Your task to perform on an android device: Go to privacy settings Image 0: 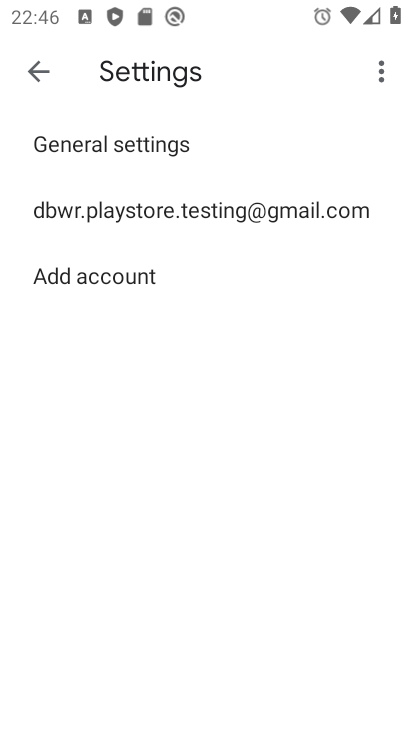
Step 0: press home button
Your task to perform on an android device: Go to privacy settings Image 1: 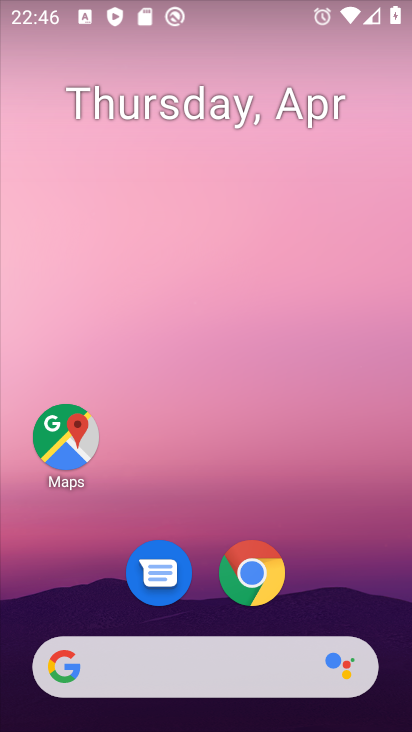
Step 1: drag from (302, 623) to (339, 193)
Your task to perform on an android device: Go to privacy settings Image 2: 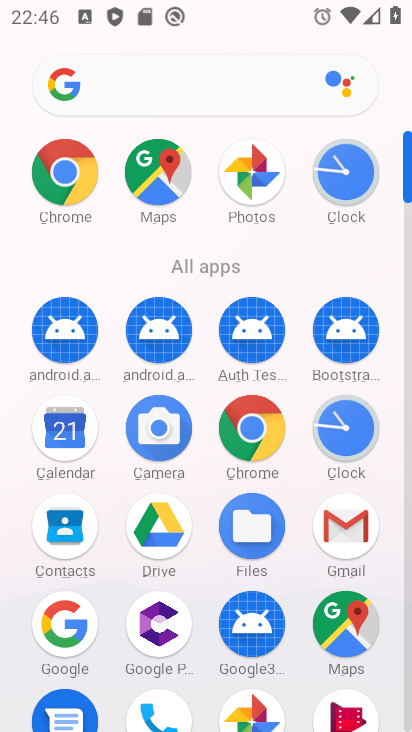
Step 2: drag from (229, 630) to (269, 235)
Your task to perform on an android device: Go to privacy settings Image 3: 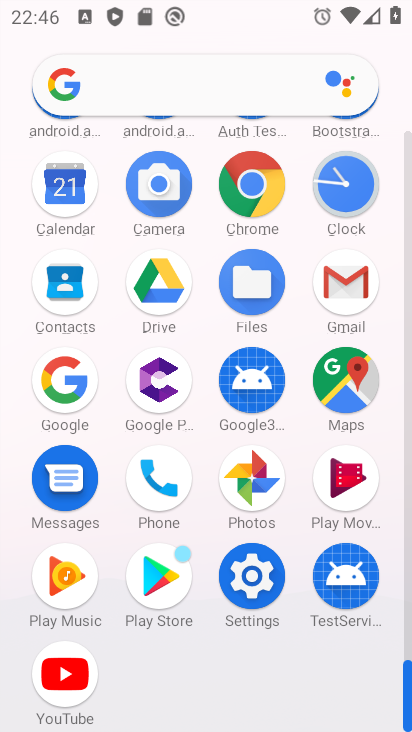
Step 3: click (256, 580)
Your task to perform on an android device: Go to privacy settings Image 4: 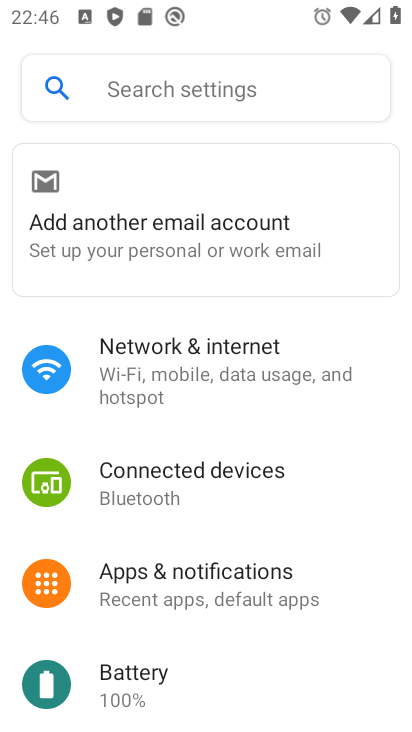
Step 4: drag from (272, 627) to (356, 118)
Your task to perform on an android device: Go to privacy settings Image 5: 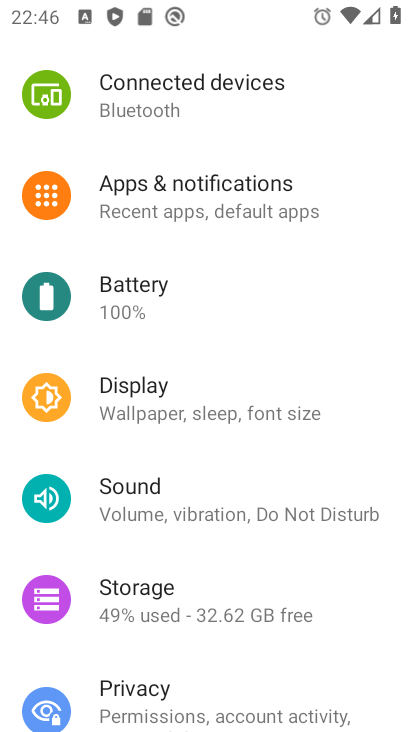
Step 5: drag from (193, 559) to (182, 169)
Your task to perform on an android device: Go to privacy settings Image 6: 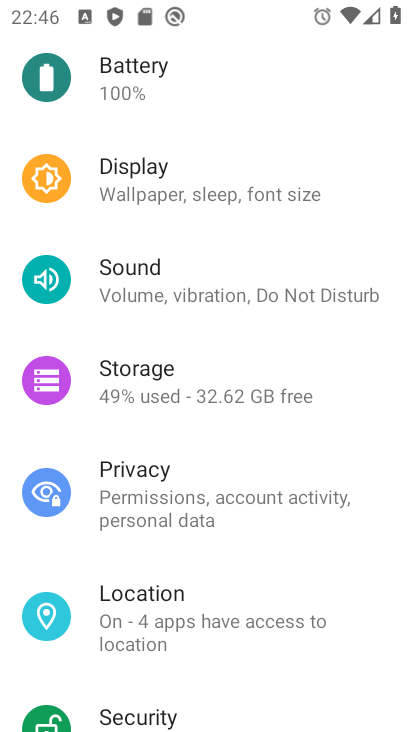
Step 6: click (192, 502)
Your task to perform on an android device: Go to privacy settings Image 7: 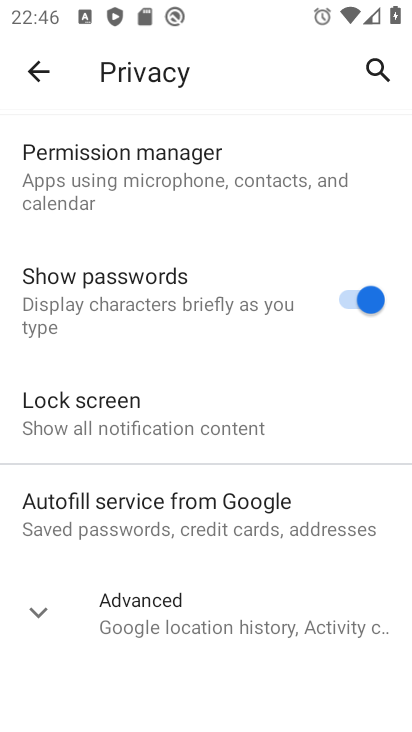
Step 7: task complete